Your task to perform on an android device: What's the weather going to be this weekend? Image 0: 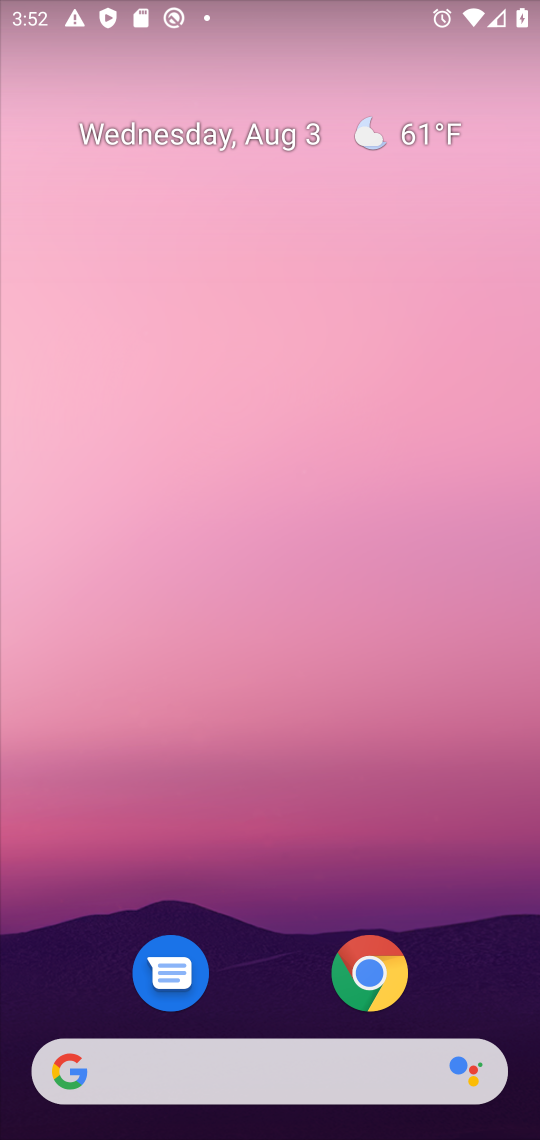
Step 0: click (391, 135)
Your task to perform on an android device: What's the weather going to be this weekend? Image 1: 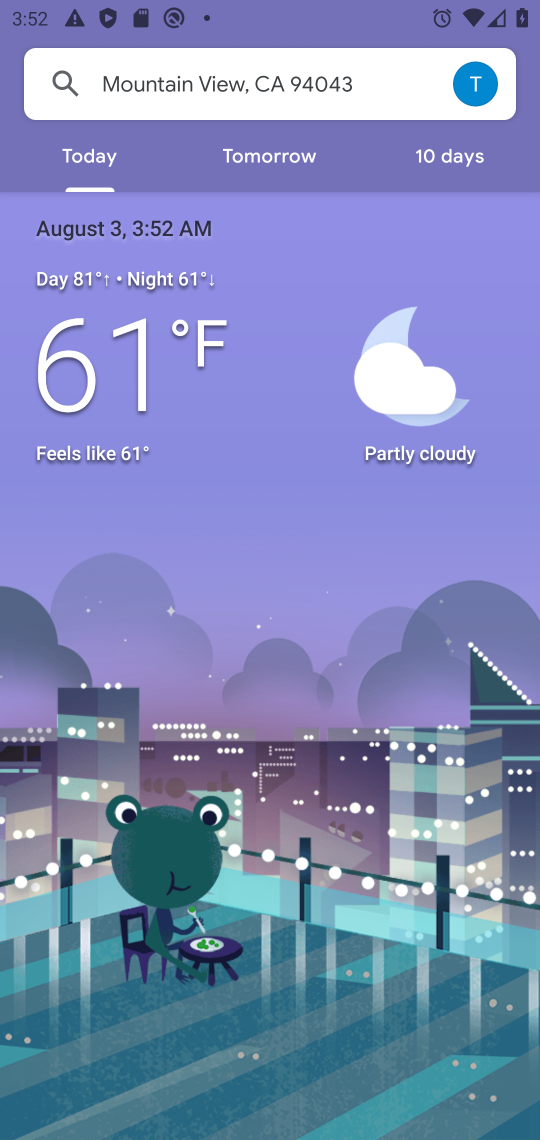
Step 1: click (438, 153)
Your task to perform on an android device: What's the weather going to be this weekend? Image 2: 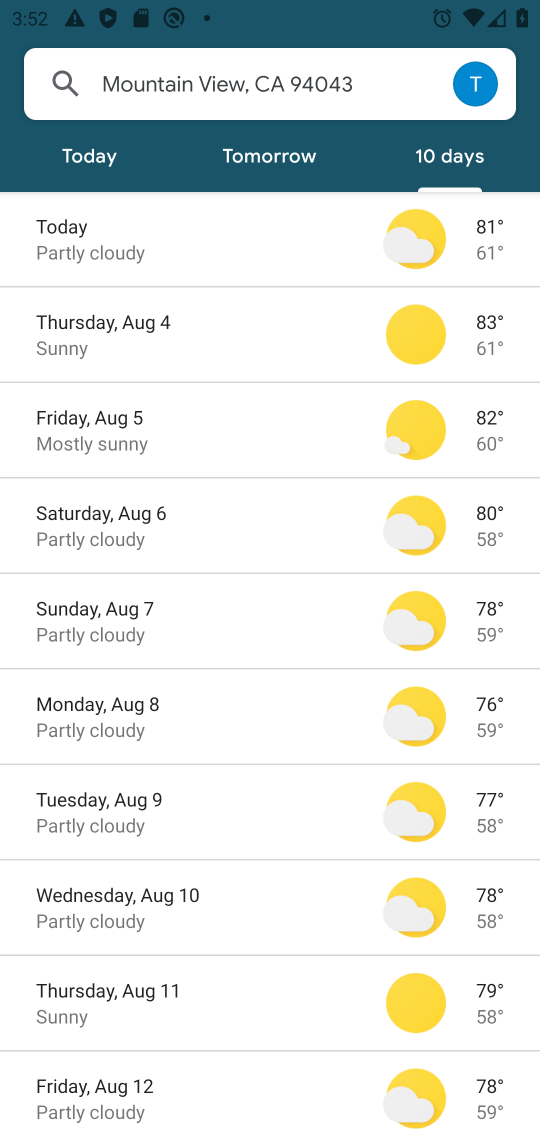
Step 2: click (127, 522)
Your task to perform on an android device: What's the weather going to be this weekend? Image 3: 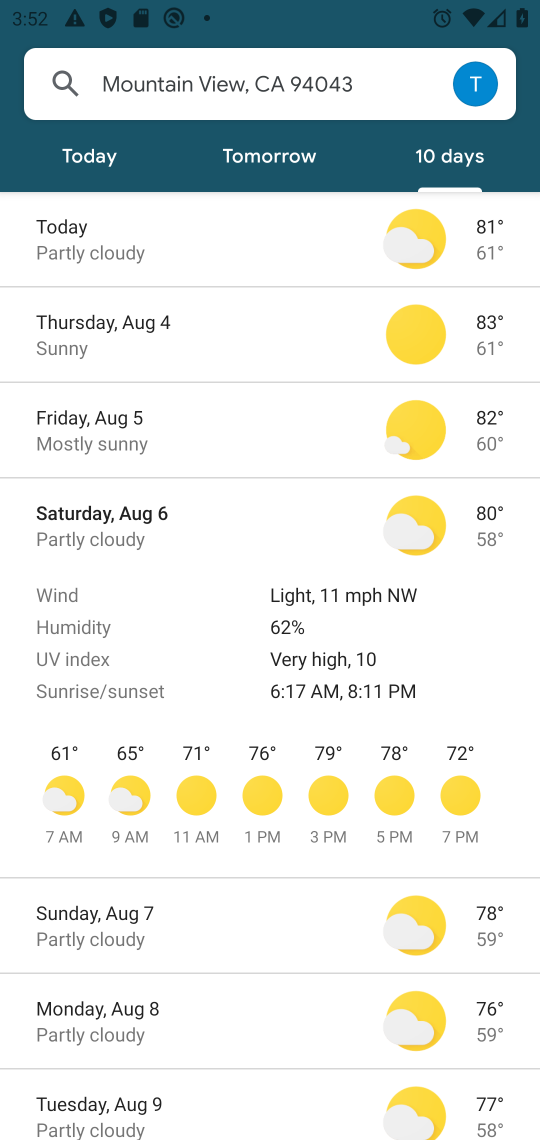
Step 3: task complete